Your task to perform on an android device: Open sound settings Image 0: 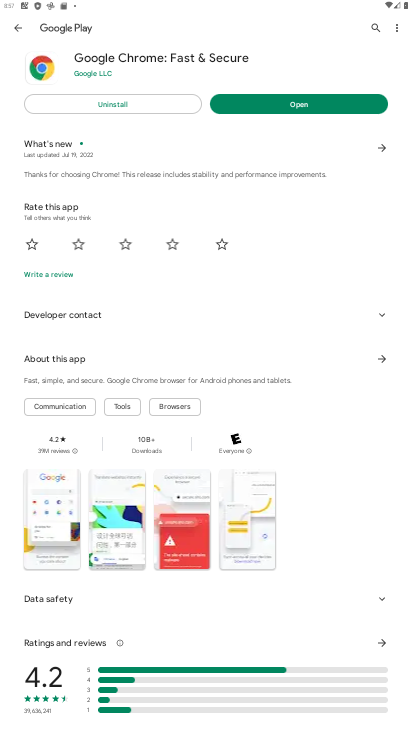
Step 0: press home button
Your task to perform on an android device: Open sound settings Image 1: 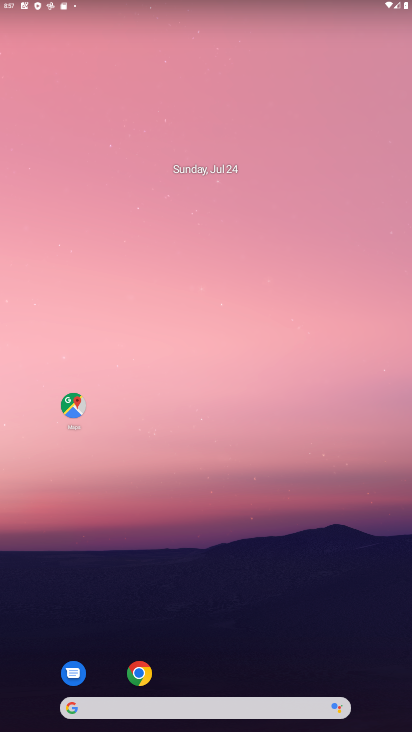
Step 1: drag from (187, 661) to (190, 151)
Your task to perform on an android device: Open sound settings Image 2: 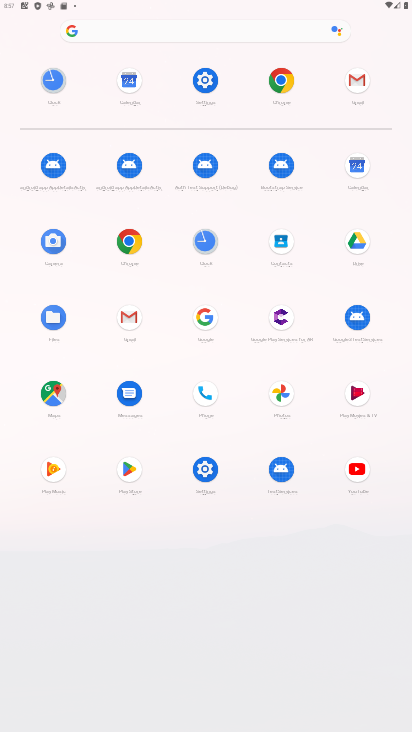
Step 2: click (204, 473)
Your task to perform on an android device: Open sound settings Image 3: 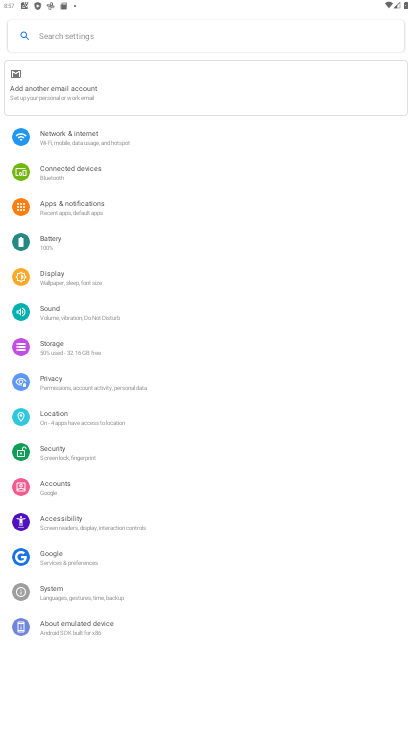
Step 3: click (43, 319)
Your task to perform on an android device: Open sound settings Image 4: 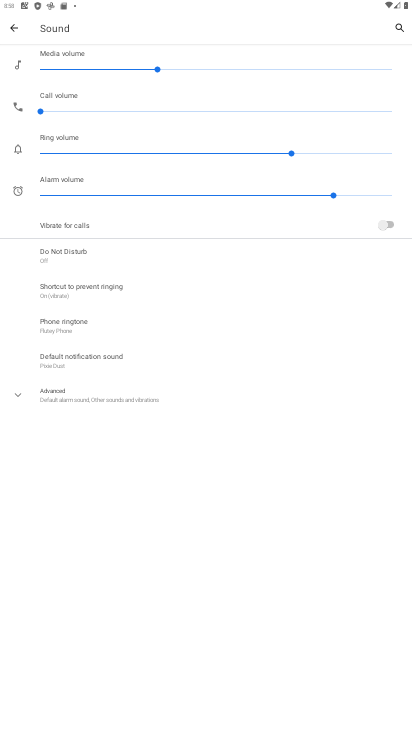
Step 4: task complete